Your task to perform on an android device: Search for pizza restaurants on Maps Image 0: 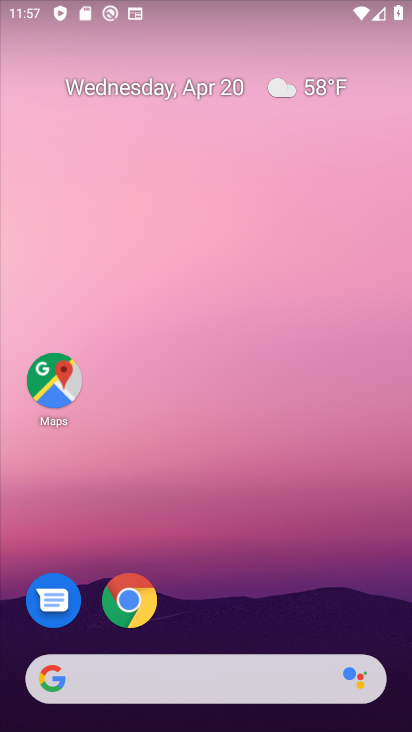
Step 0: click (54, 386)
Your task to perform on an android device: Search for pizza restaurants on Maps Image 1: 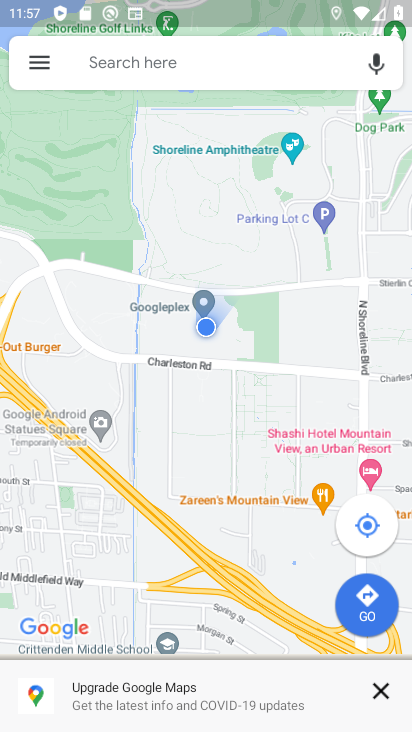
Step 1: click (185, 56)
Your task to perform on an android device: Search for pizza restaurants on Maps Image 2: 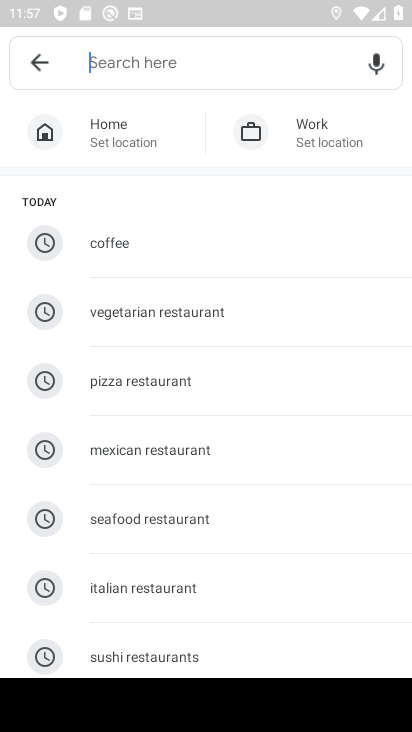
Step 2: click (160, 373)
Your task to perform on an android device: Search for pizza restaurants on Maps Image 3: 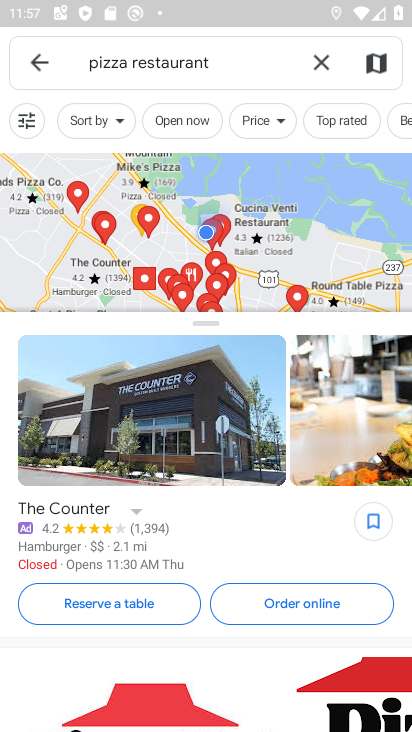
Step 3: task complete